Your task to perform on an android device: toggle wifi Image 0: 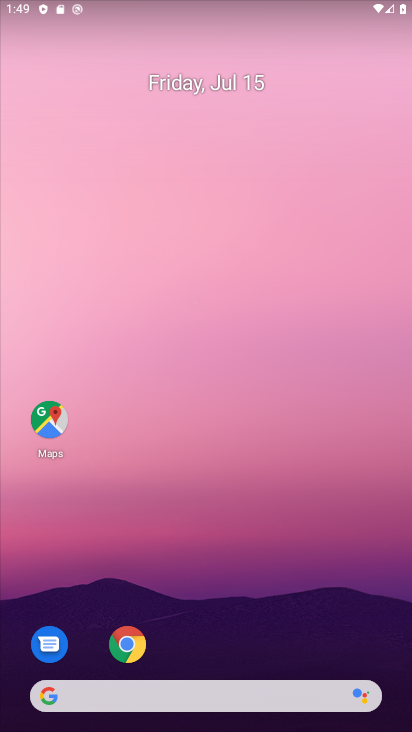
Step 0: drag from (16, 696) to (411, 8)
Your task to perform on an android device: toggle wifi Image 1: 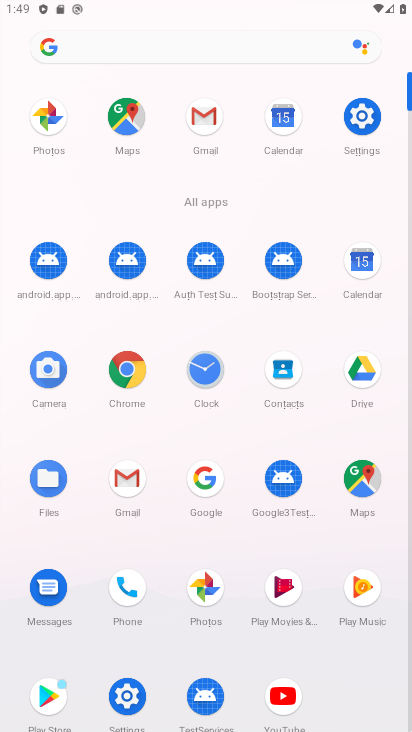
Step 1: click (117, 689)
Your task to perform on an android device: toggle wifi Image 2: 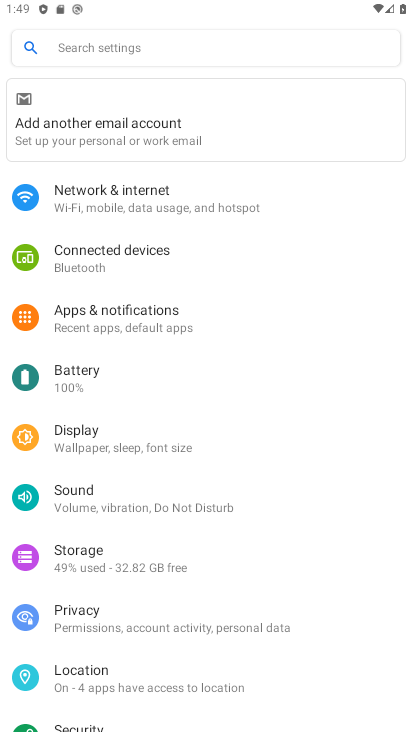
Step 2: click (141, 190)
Your task to perform on an android device: toggle wifi Image 3: 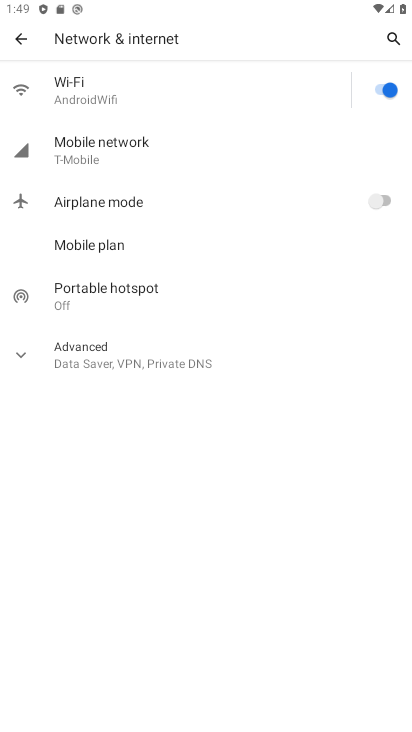
Step 3: click (86, 92)
Your task to perform on an android device: toggle wifi Image 4: 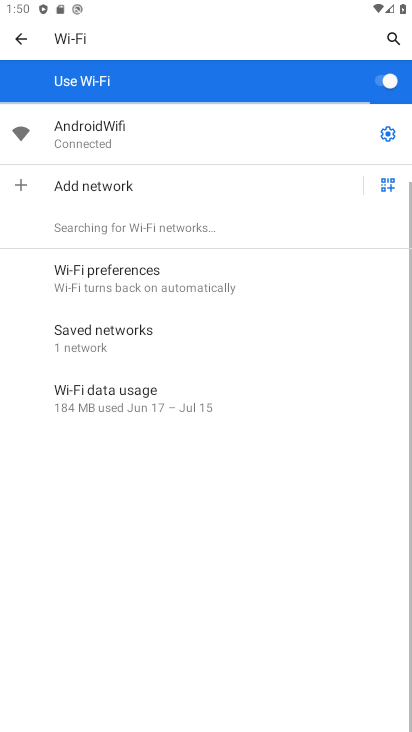
Step 4: task complete